Your task to perform on an android device: Open calendar and show me the first week of next month Image 0: 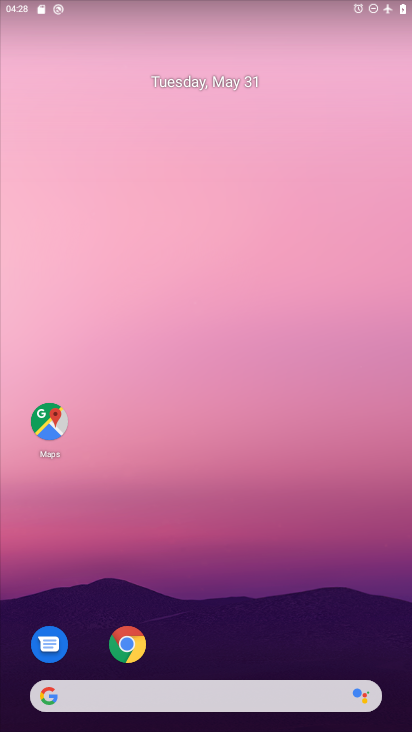
Step 0: drag from (263, 641) to (266, 109)
Your task to perform on an android device: Open calendar and show me the first week of next month Image 1: 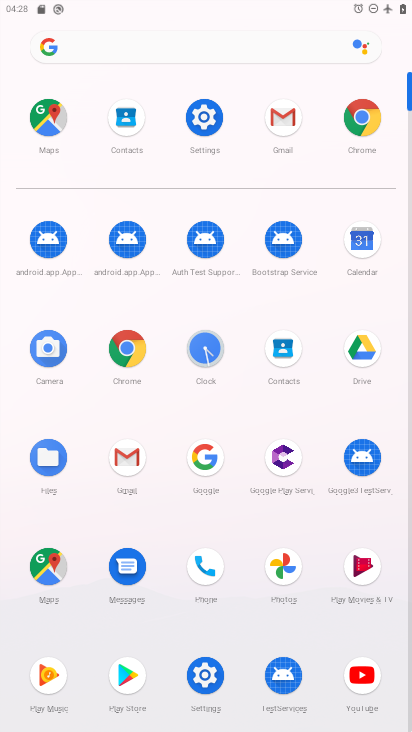
Step 1: click (360, 236)
Your task to perform on an android device: Open calendar and show me the first week of next month Image 2: 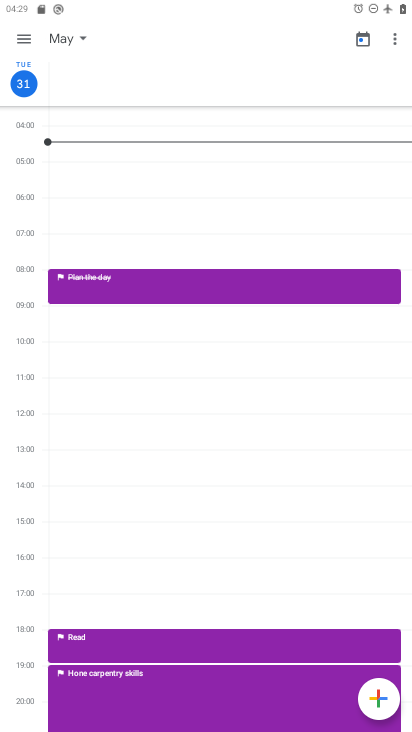
Step 2: click (65, 40)
Your task to perform on an android device: Open calendar and show me the first week of next month Image 3: 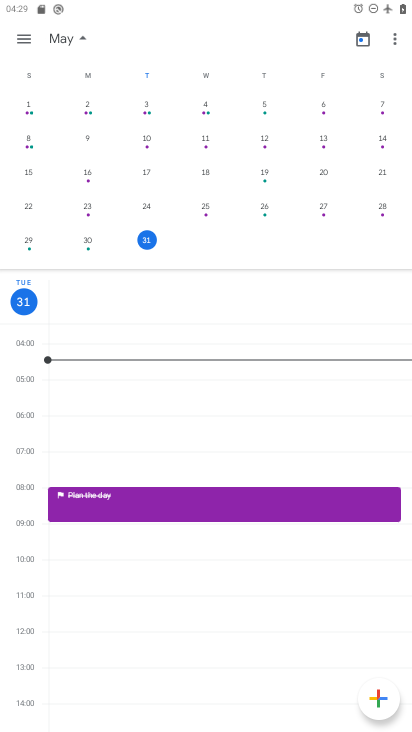
Step 3: drag from (350, 157) to (71, 146)
Your task to perform on an android device: Open calendar and show me the first week of next month Image 4: 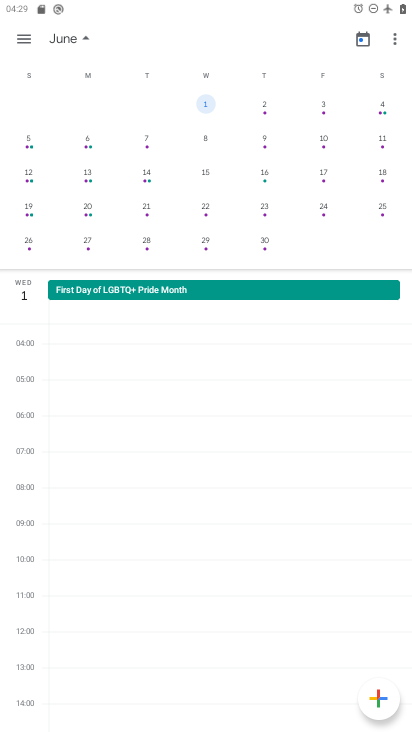
Step 4: click (28, 144)
Your task to perform on an android device: Open calendar and show me the first week of next month Image 5: 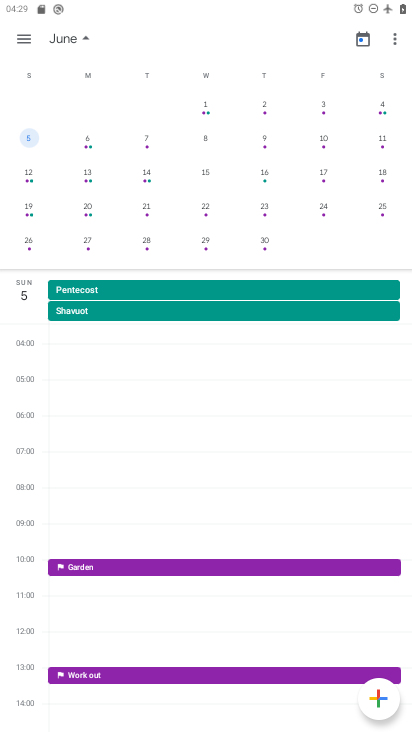
Step 5: click (17, 36)
Your task to perform on an android device: Open calendar and show me the first week of next month Image 6: 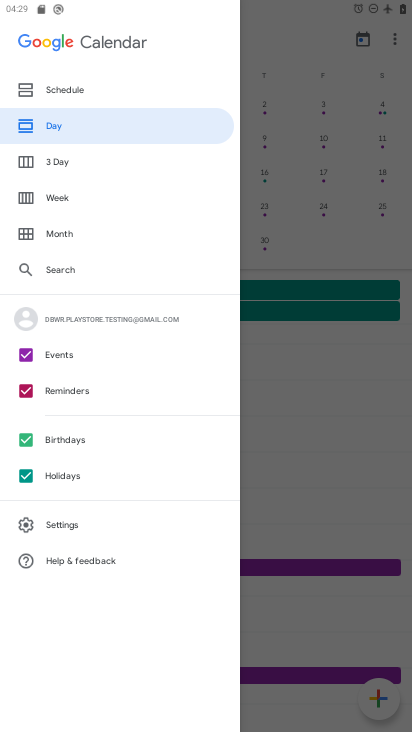
Step 6: click (64, 190)
Your task to perform on an android device: Open calendar and show me the first week of next month Image 7: 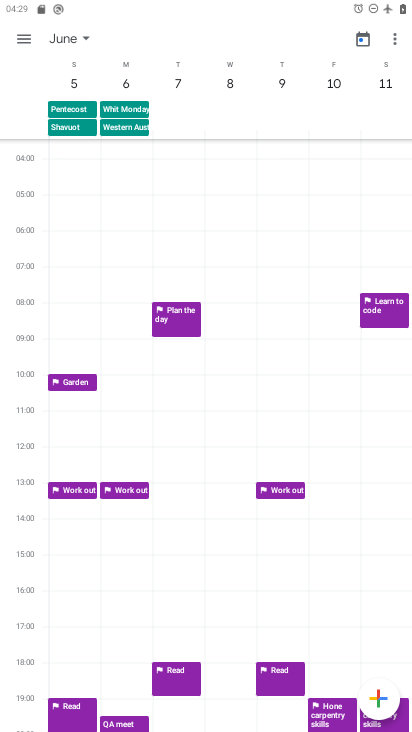
Step 7: task complete